Your task to perform on an android device: Go to Yahoo.com Image 0: 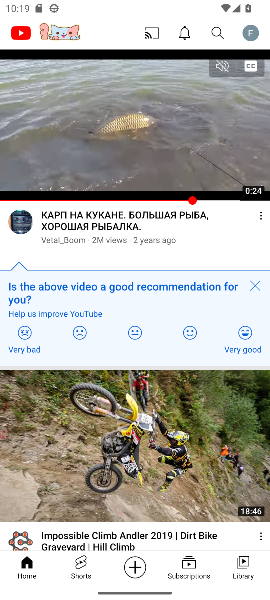
Step 0: press home button
Your task to perform on an android device: Go to Yahoo.com Image 1: 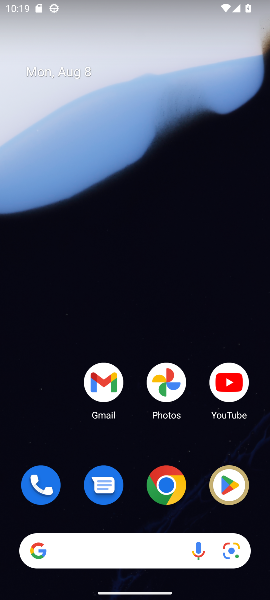
Step 1: click (168, 487)
Your task to perform on an android device: Go to Yahoo.com Image 2: 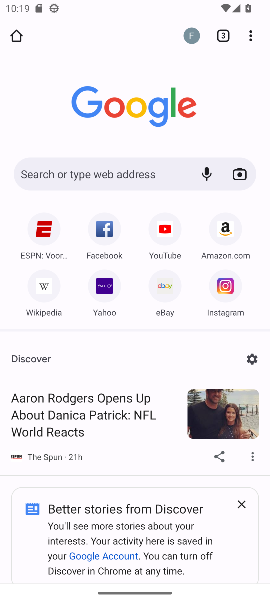
Step 2: click (112, 170)
Your task to perform on an android device: Go to Yahoo.com Image 3: 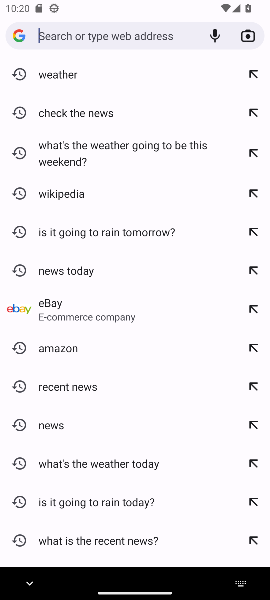
Step 3: type "Yahoo.com"
Your task to perform on an android device: Go to Yahoo.com Image 4: 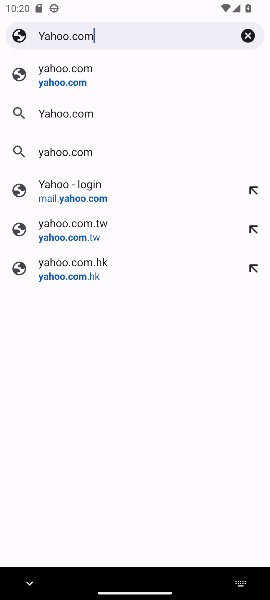
Step 4: click (60, 82)
Your task to perform on an android device: Go to Yahoo.com Image 5: 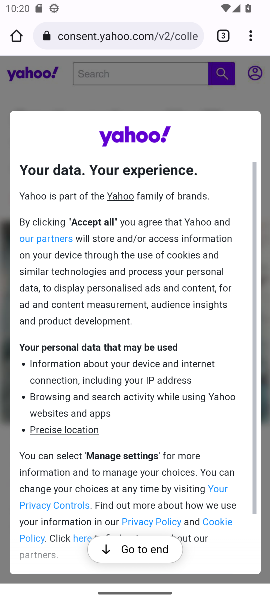
Step 5: drag from (168, 510) to (221, 181)
Your task to perform on an android device: Go to Yahoo.com Image 6: 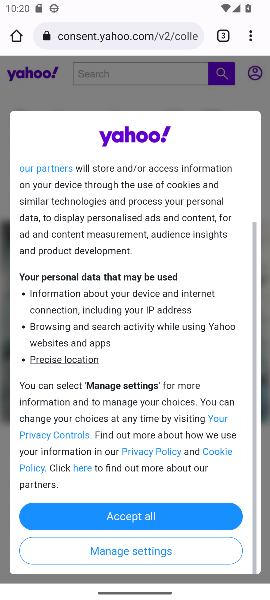
Step 6: click (121, 514)
Your task to perform on an android device: Go to Yahoo.com Image 7: 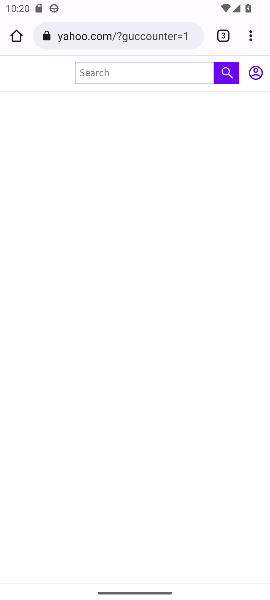
Step 7: click (162, 505)
Your task to perform on an android device: Go to Yahoo.com Image 8: 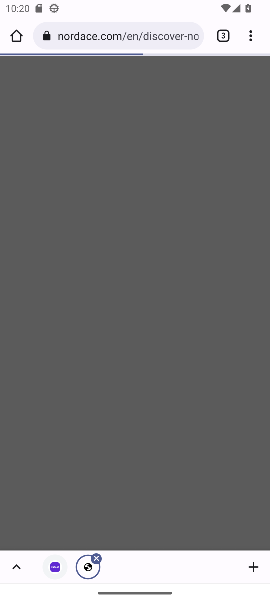
Step 8: task complete